Your task to perform on an android device: find snoozed emails in the gmail app Image 0: 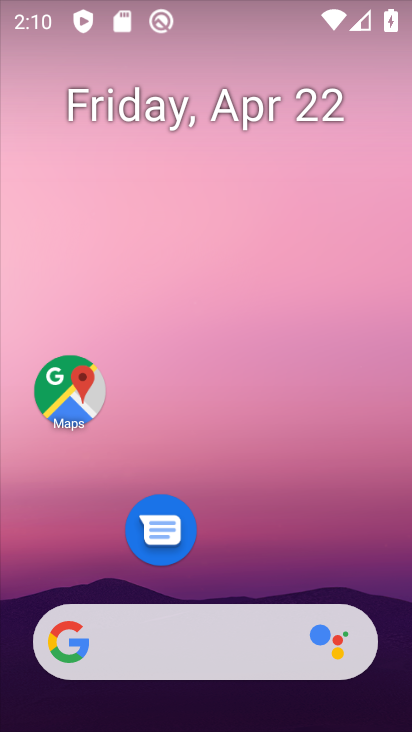
Step 0: drag from (262, 540) to (235, 0)
Your task to perform on an android device: find snoozed emails in the gmail app Image 1: 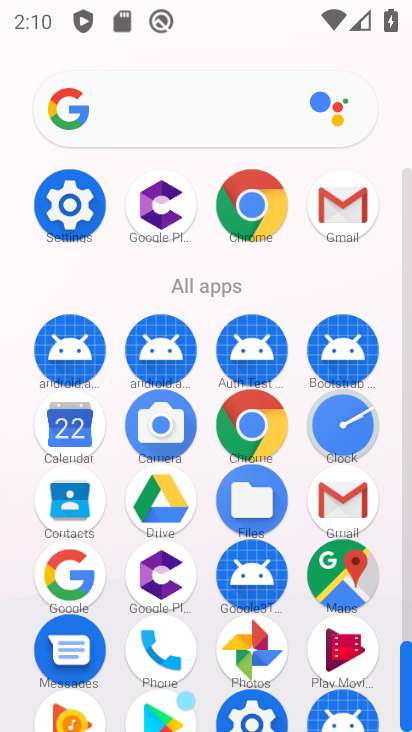
Step 1: click (326, 498)
Your task to perform on an android device: find snoozed emails in the gmail app Image 2: 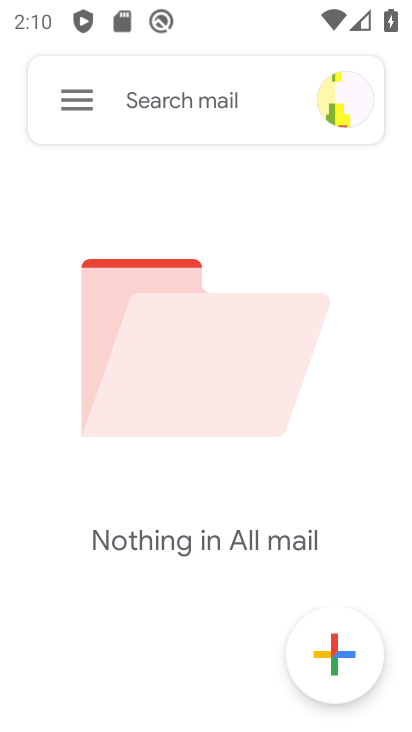
Step 2: click (77, 106)
Your task to perform on an android device: find snoozed emails in the gmail app Image 3: 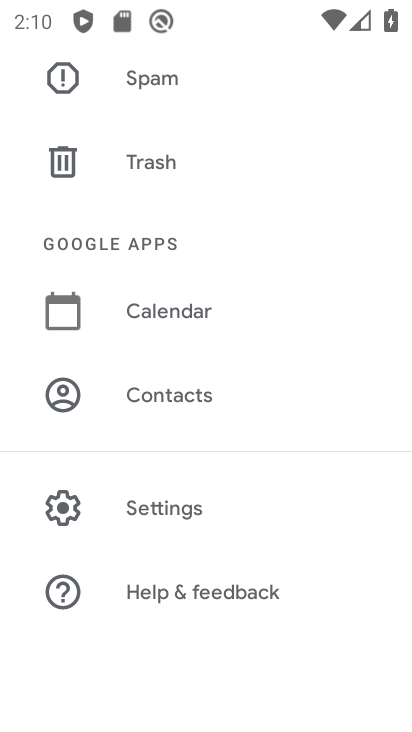
Step 3: drag from (206, 156) to (230, 665)
Your task to perform on an android device: find snoozed emails in the gmail app Image 4: 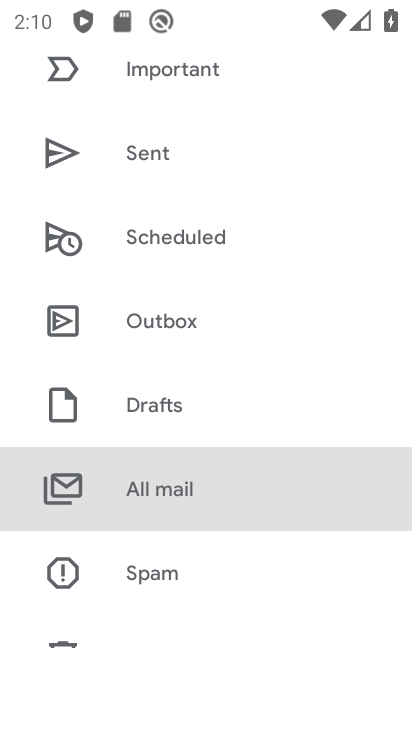
Step 4: drag from (181, 183) to (196, 661)
Your task to perform on an android device: find snoozed emails in the gmail app Image 5: 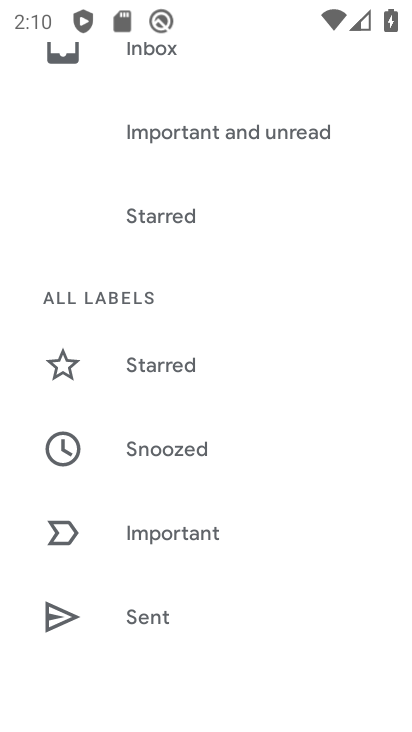
Step 5: drag from (242, 271) to (292, 642)
Your task to perform on an android device: find snoozed emails in the gmail app Image 6: 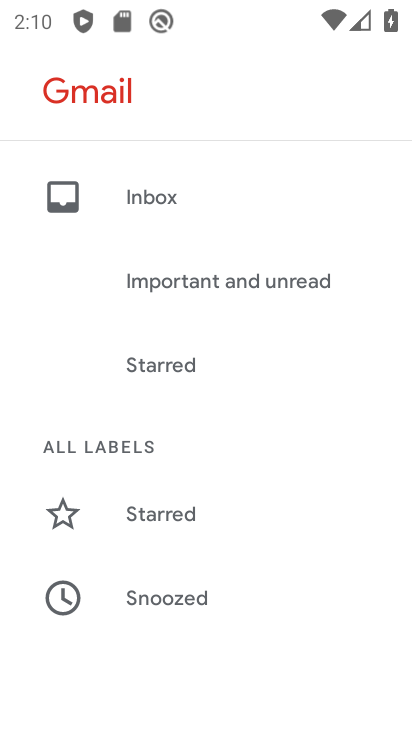
Step 6: click (162, 595)
Your task to perform on an android device: find snoozed emails in the gmail app Image 7: 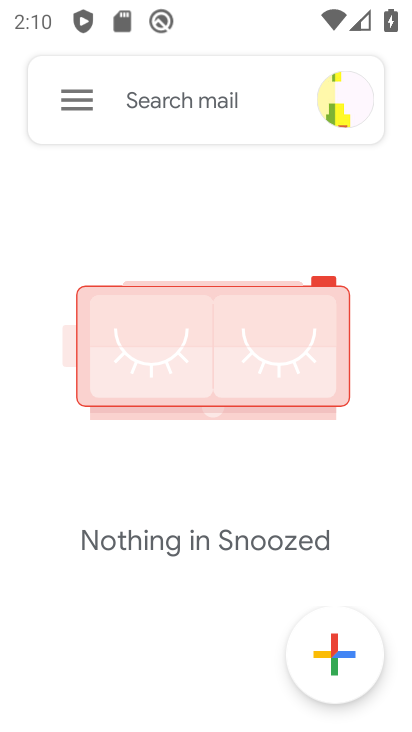
Step 7: task complete